Your task to perform on an android device: check data usage Image 0: 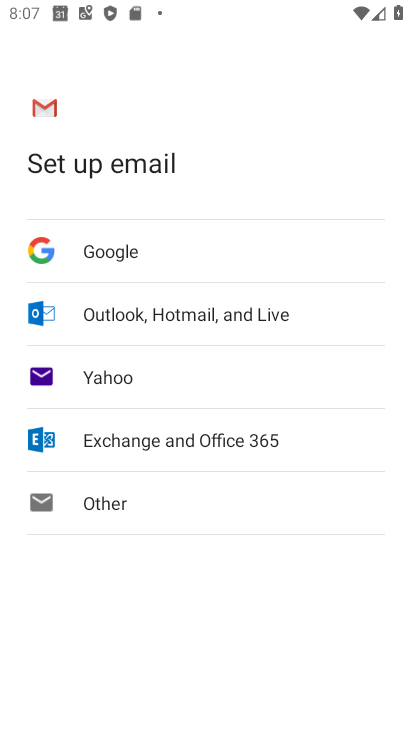
Step 0: press home button
Your task to perform on an android device: check data usage Image 1: 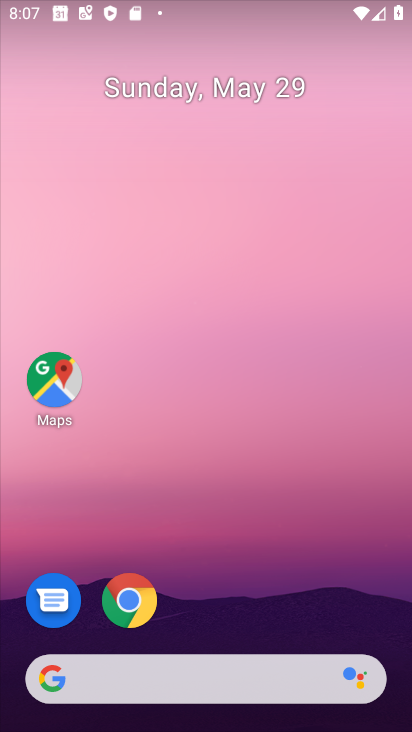
Step 1: drag from (318, 601) to (327, 169)
Your task to perform on an android device: check data usage Image 2: 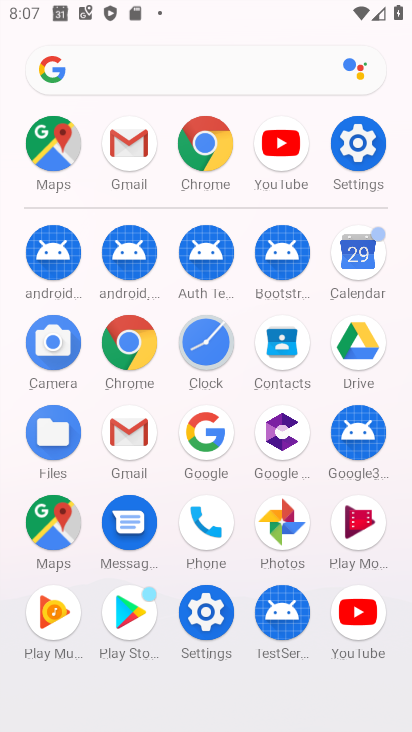
Step 2: click (346, 157)
Your task to perform on an android device: check data usage Image 3: 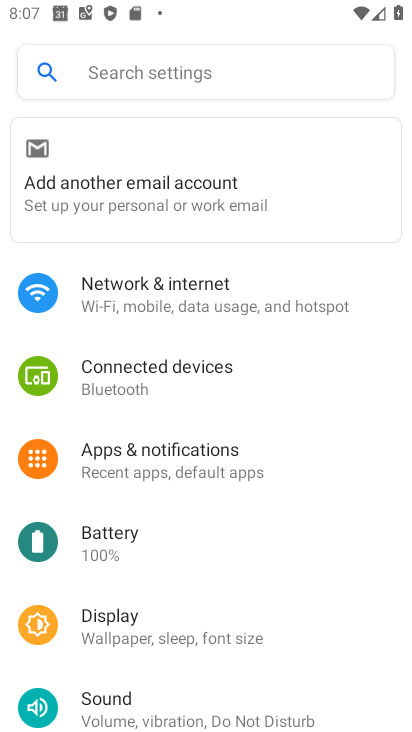
Step 3: click (207, 297)
Your task to perform on an android device: check data usage Image 4: 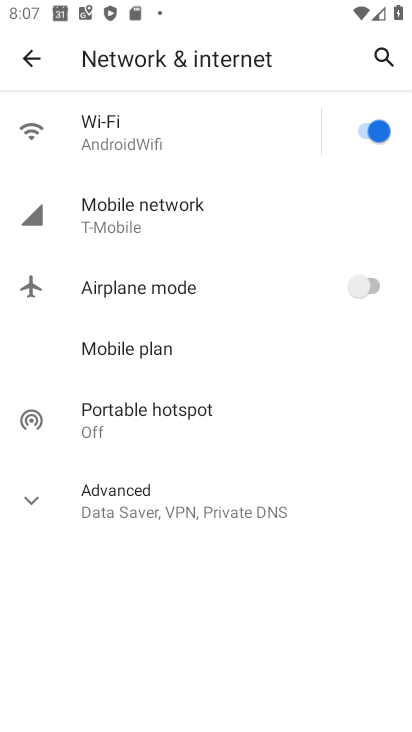
Step 4: click (154, 206)
Your task to perform on an android device: check data usage Image 5: 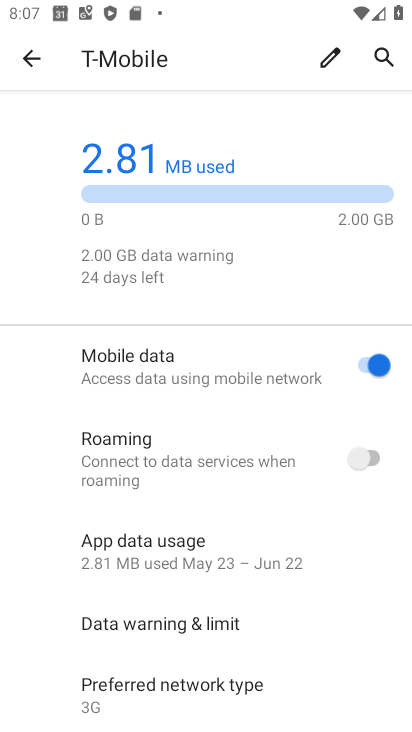
Step 5: task complete